Your task to perform on an android device: change the clock display to show seconds Image 0: 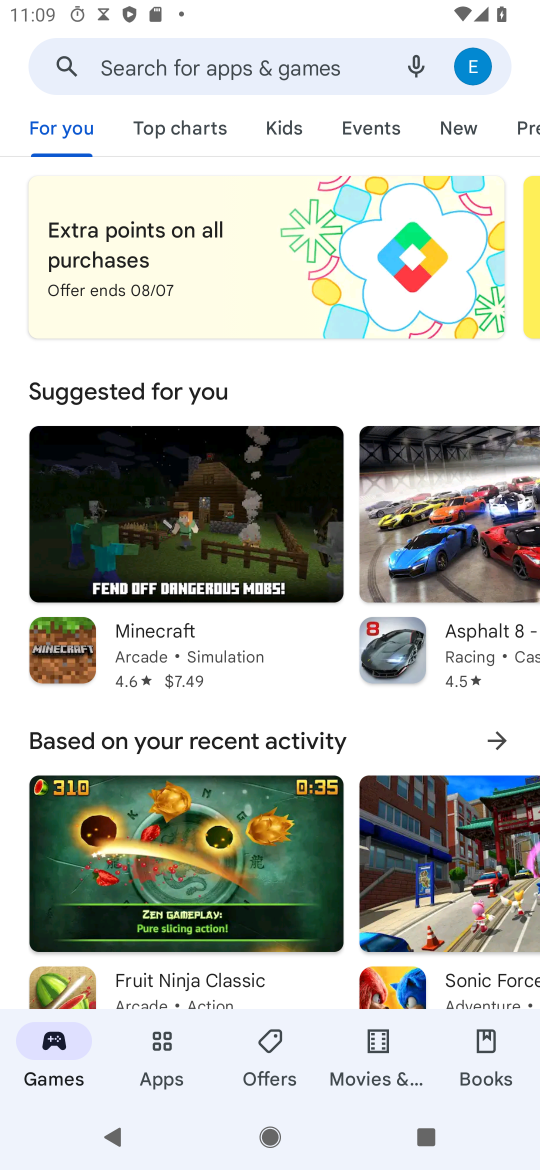
Step 0: press back button
Your task to perform on an android device: change the clock display to show seconds Image 1: 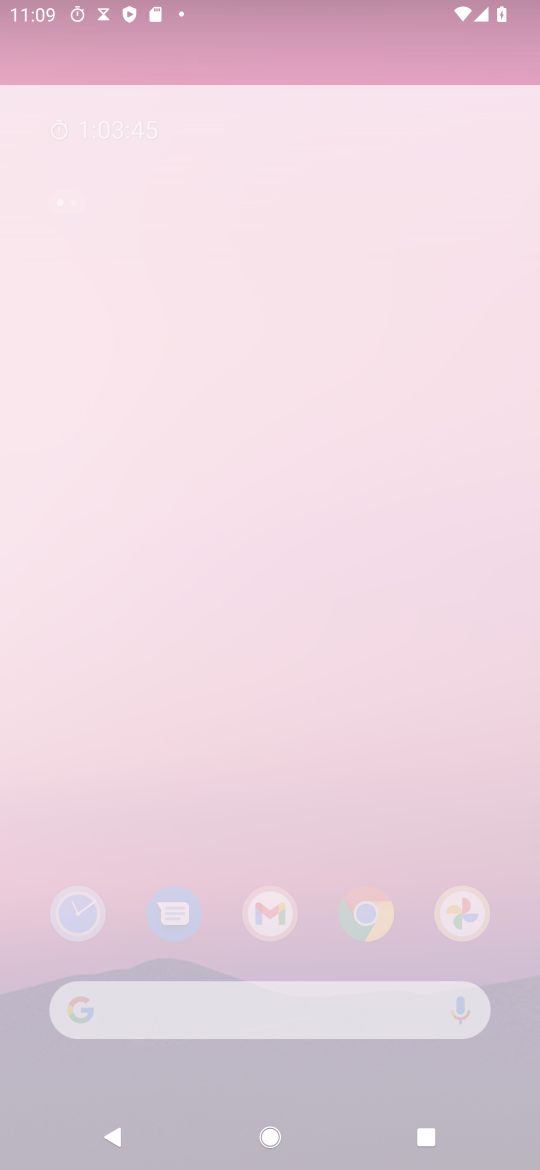
Step 1: press home button
Your task to perform on an android device: change the clock display to show seconds Image 2: 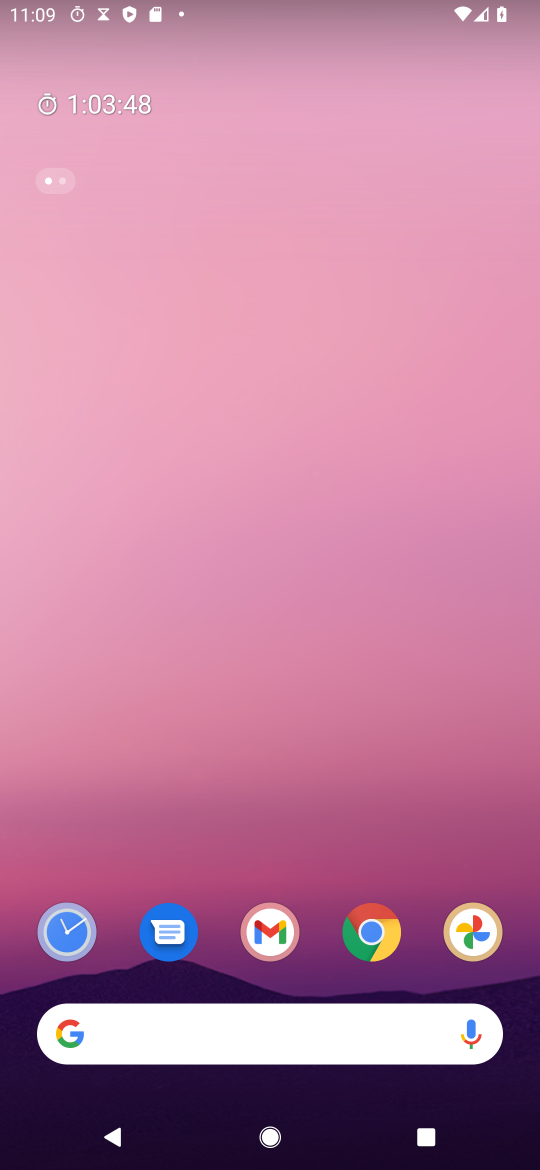
Step 2: click (90, 941)
Your task to perform on an android device: change the clock display to show seconds Image 3: 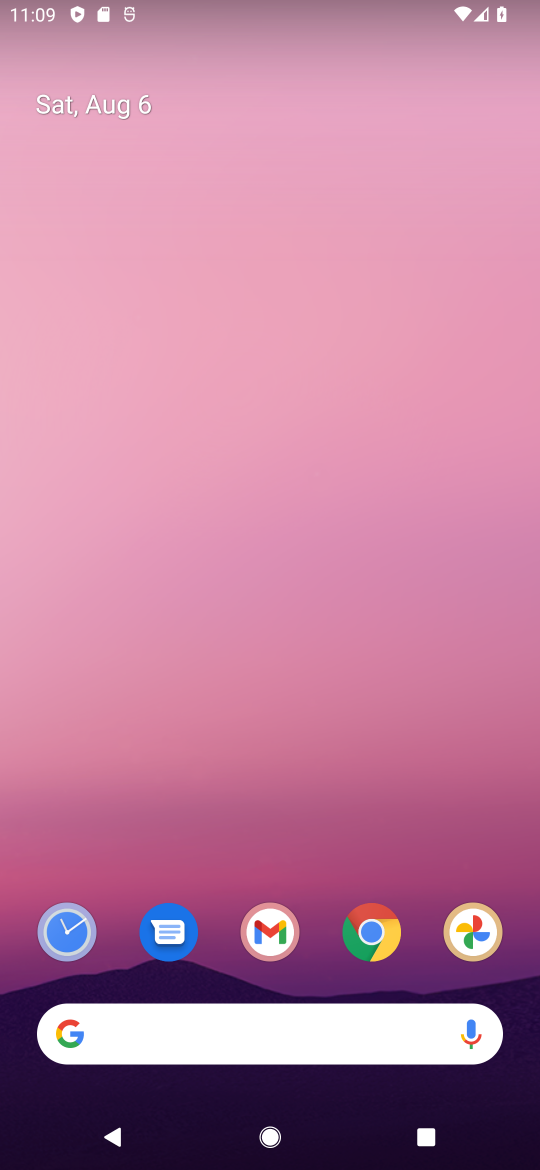
Step 3: click (68, 931)
Your task to perform on an android device: change the clock display to show seconds Image 4: 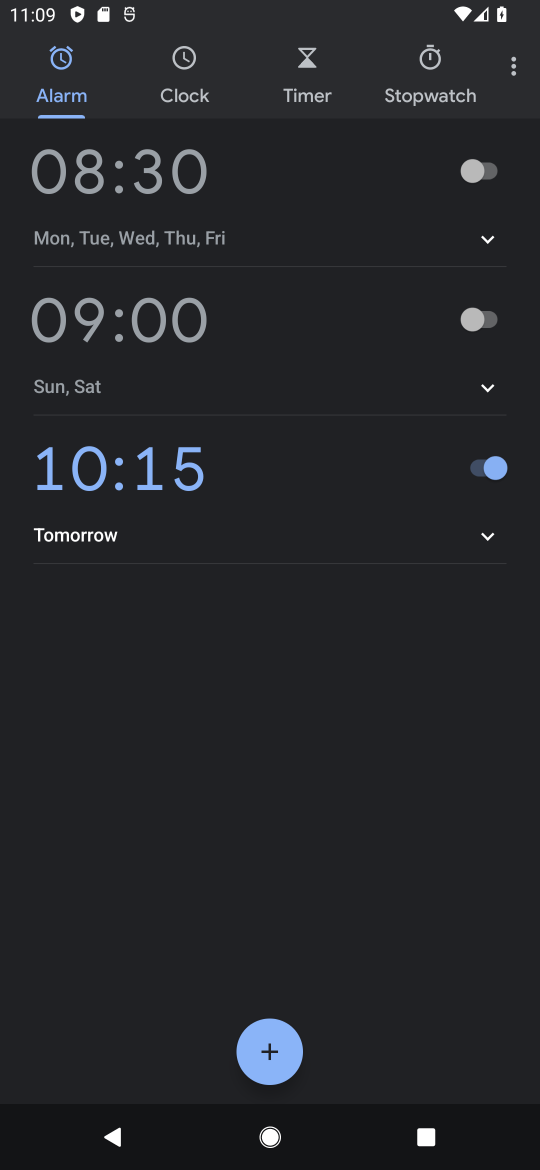
Step 4: click (513, 75)
Your task to perform on an android device: change the clock display to show seconds Image 5: 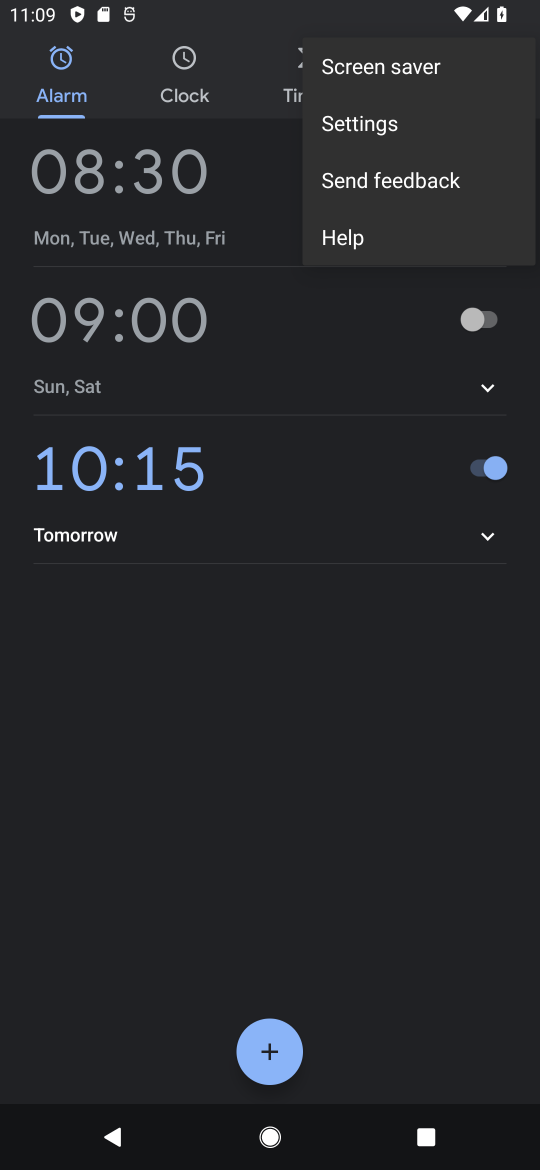
Step 5: click (455, 120)
Your task to perform on an android device: change the clock display to show seconds Image 6: 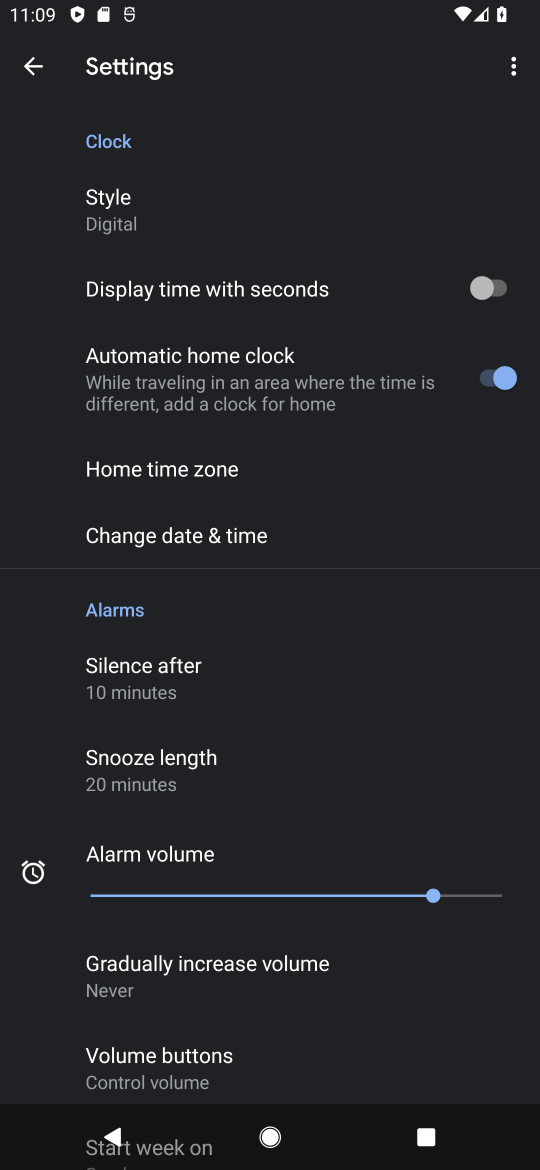
Step 6: click (491, 271)
Your task to perform on an android device: change the clock display to show seconds Image 7: 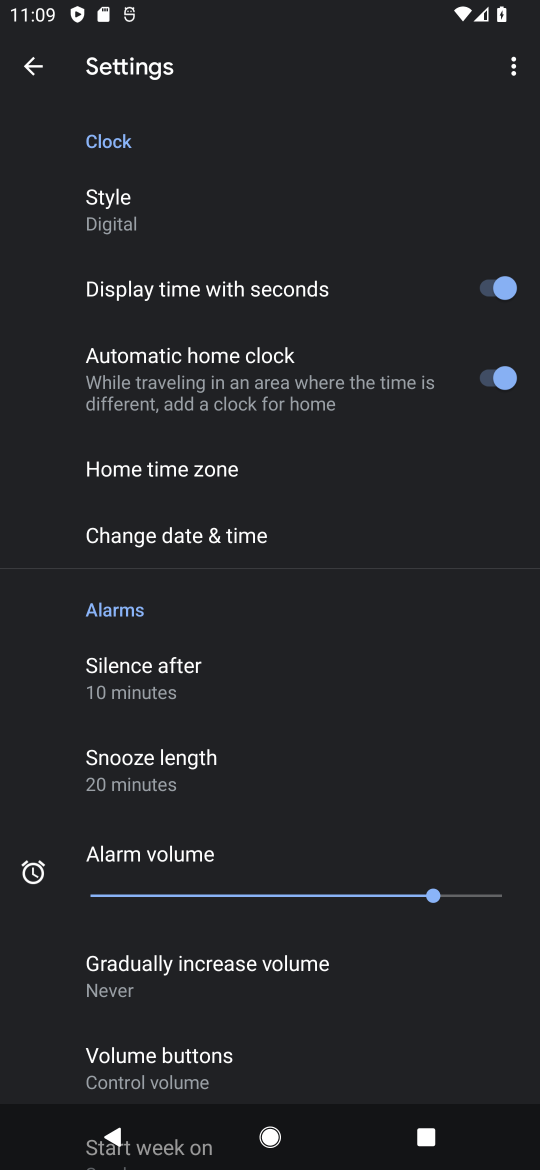
Step 7: task complete